Your task to perform on an android device: turn vacation reply on in the gmail app Image 0: 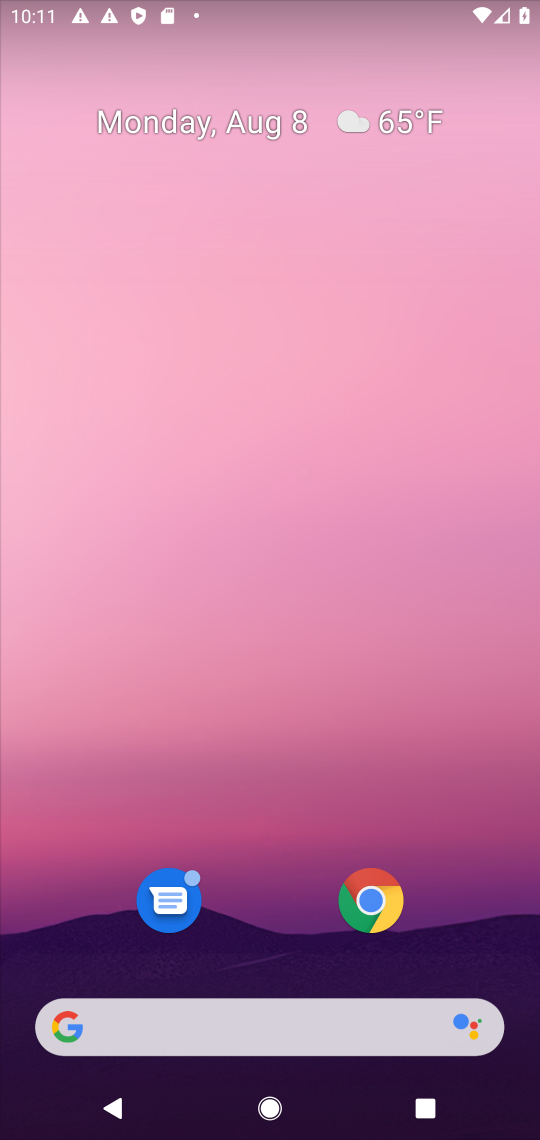
Step 0: drag from (323, 909) to (240, 27)
Your task to perform on an android device: turn vacation reply on in the gmail app Image 1: 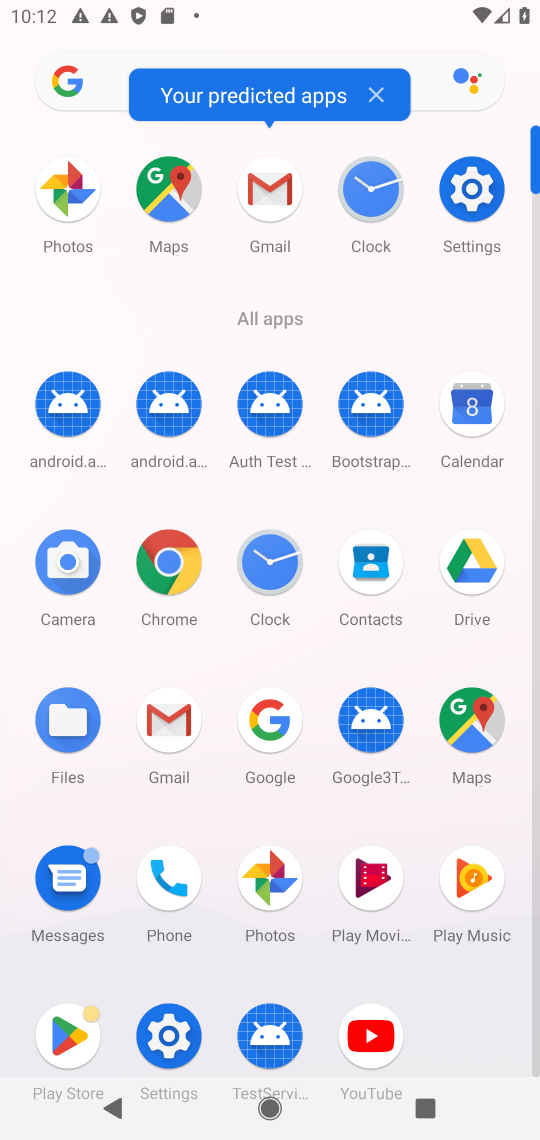
Step 1: click (270, 184)
Your task to perform on an android device: turn vacation reply on in the gmail app Image 2: 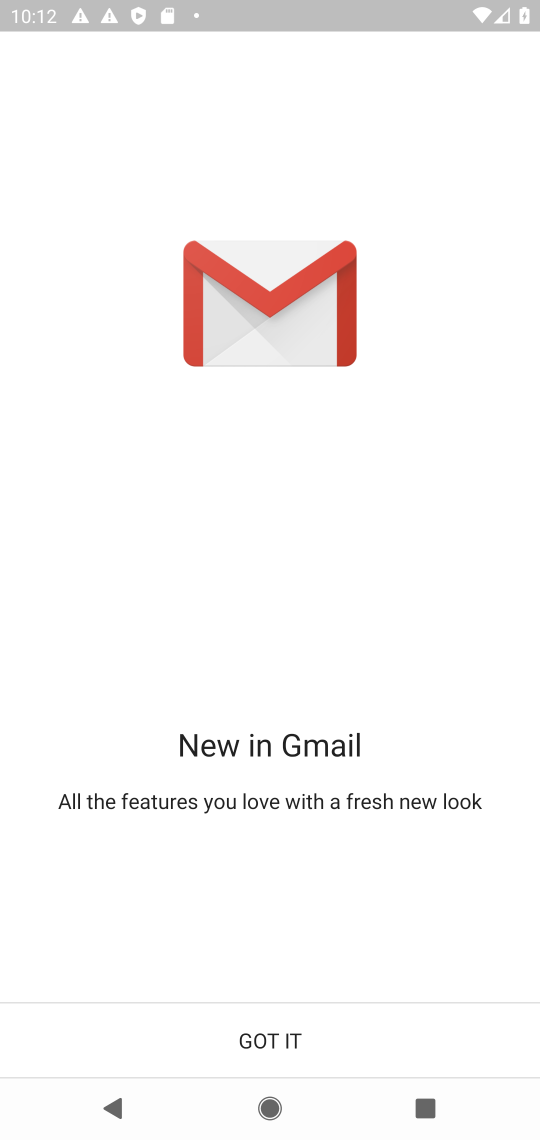
Step 2: click (284, 1036)
Your task to perform on an android device: turn vacation reply on in the gmail app Image 3: 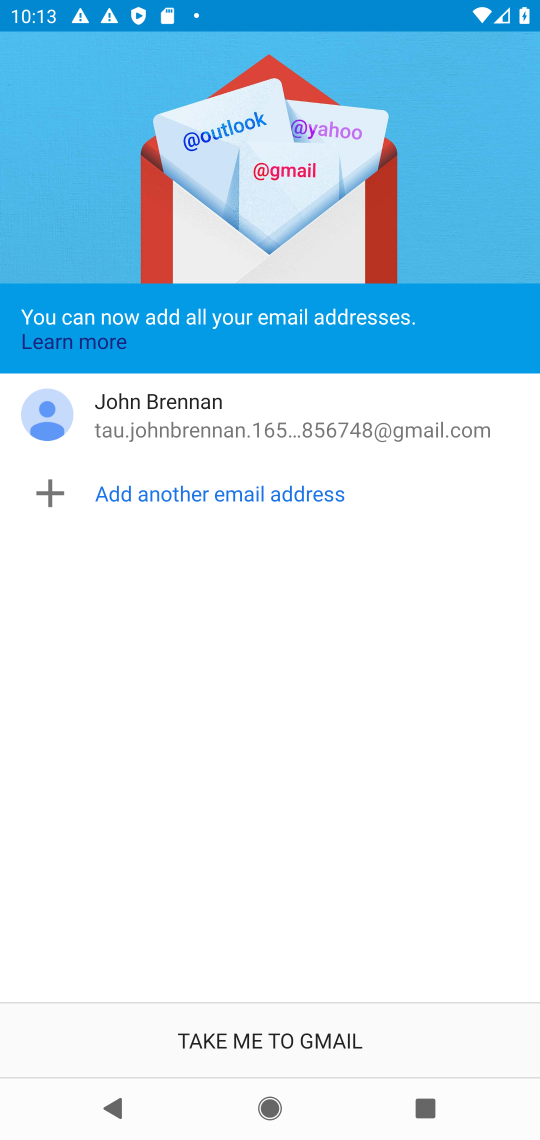
Step 3: click (284, 1036)
Your task to perform on an android device: turn vacation reply on in the gmail app Image 4: 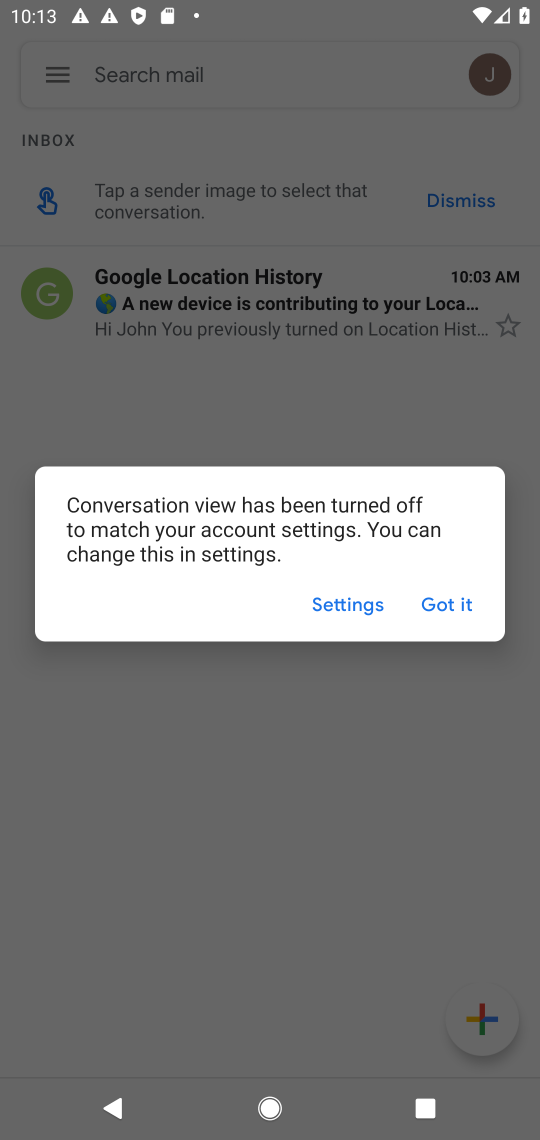
Step 4: click (446, 604)
Your task to perform on an android device: turn vacation reply on in the gmail app Image 5: 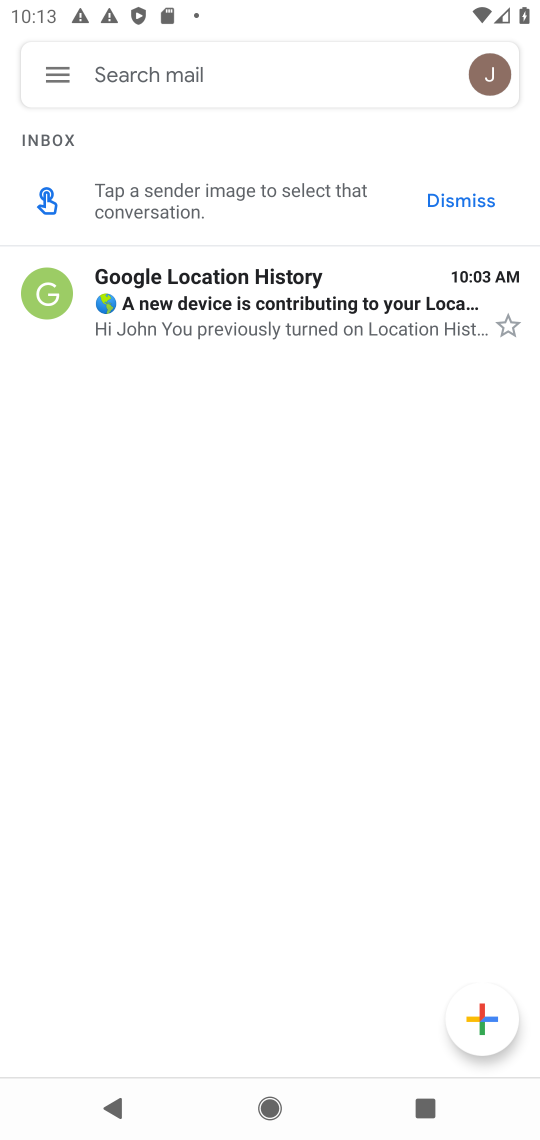
Step 5: click (57, 77)
Your task to perform on an android device: turn vacation reply on in the gmail app Image 6: 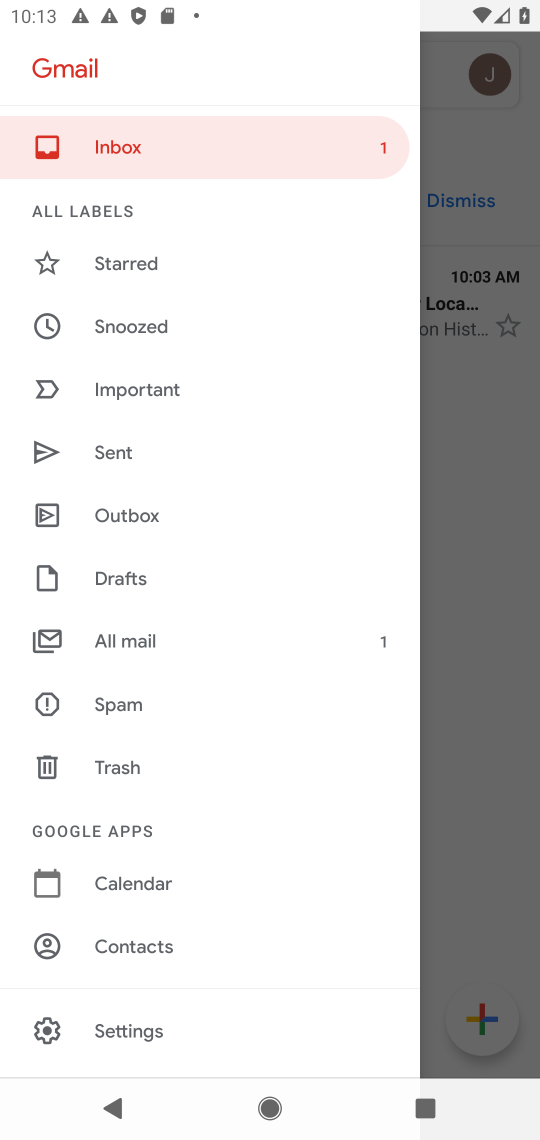
Step 6: click (130, 1013)
Your task to perform on an android device: turn vacation reply on in the gmail app Image 7: 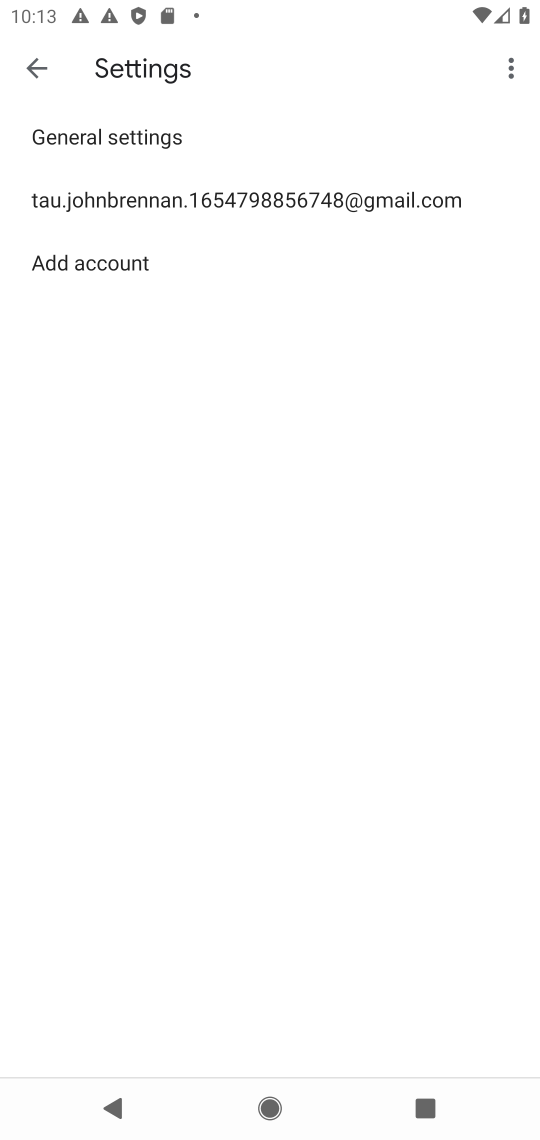
Step 7: click (188, 203)
Your task to perform on an android device: turn vacation reply on in the gmail app Image 8: 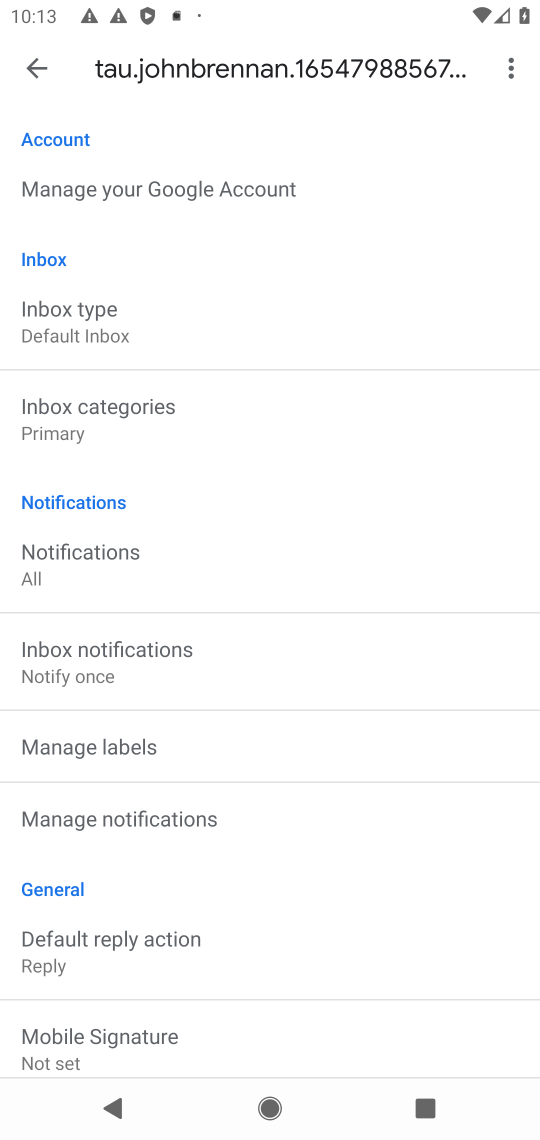
Step 8: drag from (113, 703) to (166, 438)
Your task to perform on an android device: turn vacation reply on in the gmail app Image 9: 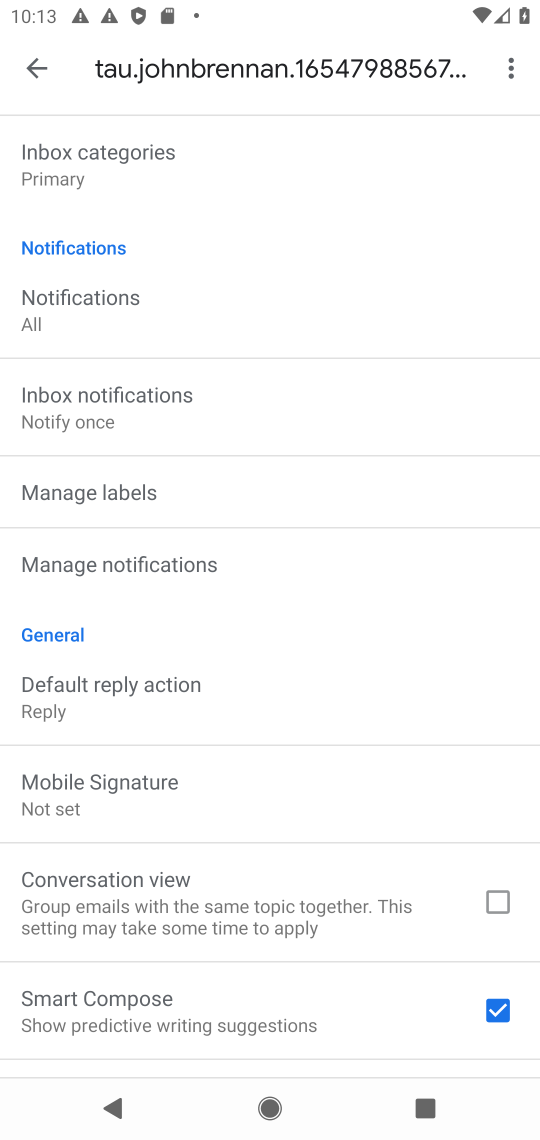
Step 9: drag from (137, 969) to (237, 421)
Your task to perform on an android device: turn vacation reply on in the gmail app Image 10: 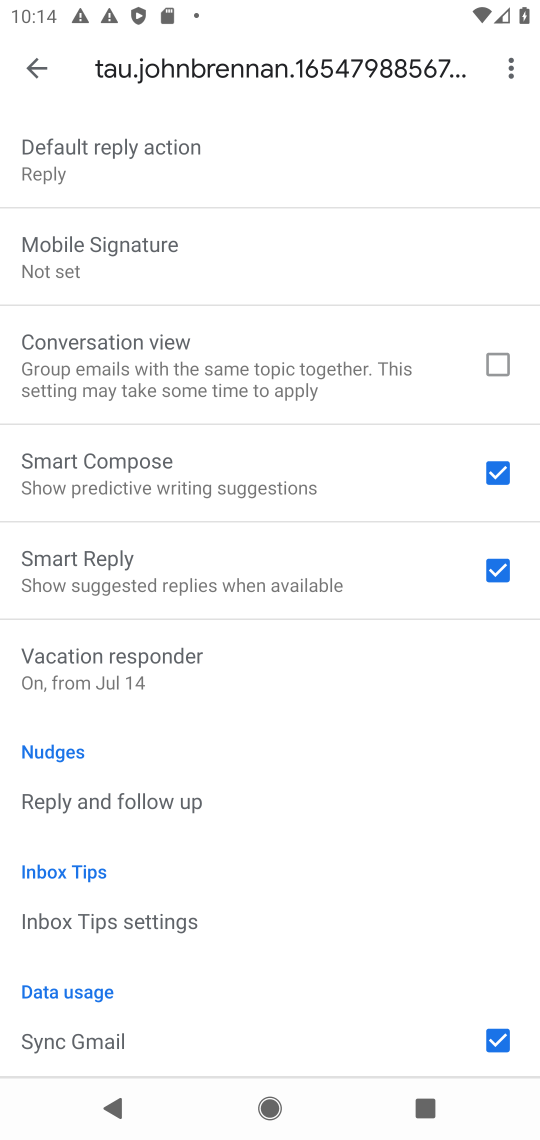
Step 10: click (104, 689)
Your task to perform on an android device: turn vacation reply on in the gmail app Image 11: 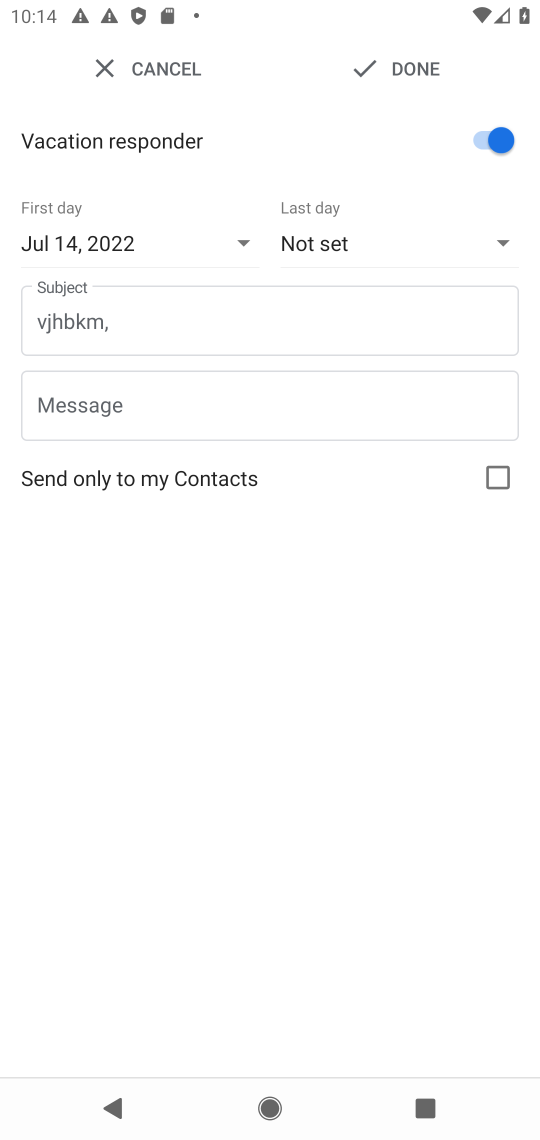
Step 11: click (406, 65)
Your task to perform on an android device: turn vacation reply on in the gmail app Image 12: 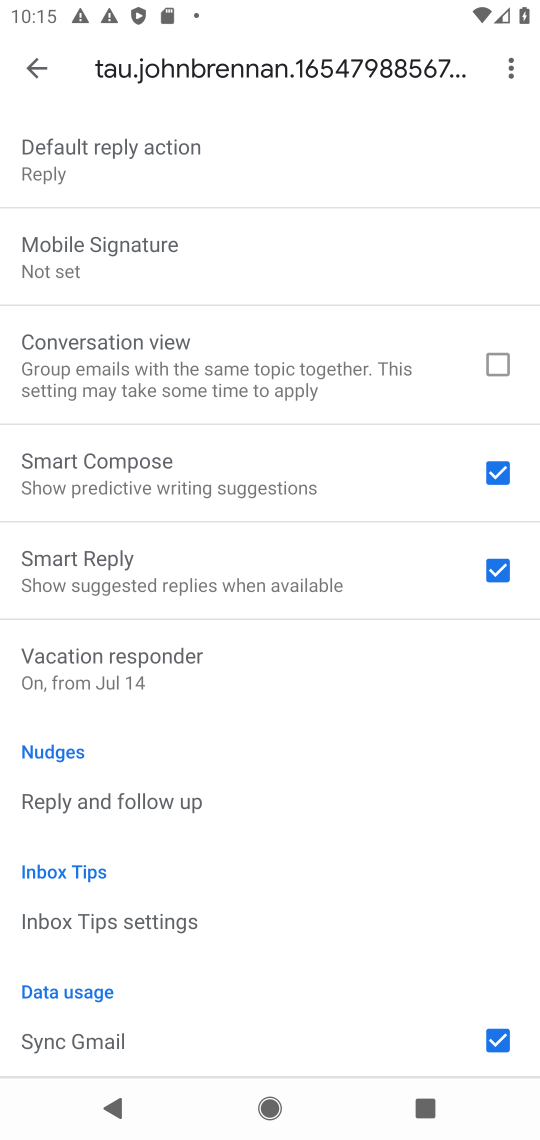
Step 12: click (126, 688)
Your task to perform on an android device: turn vacation reply on in the gmail app Image 13: 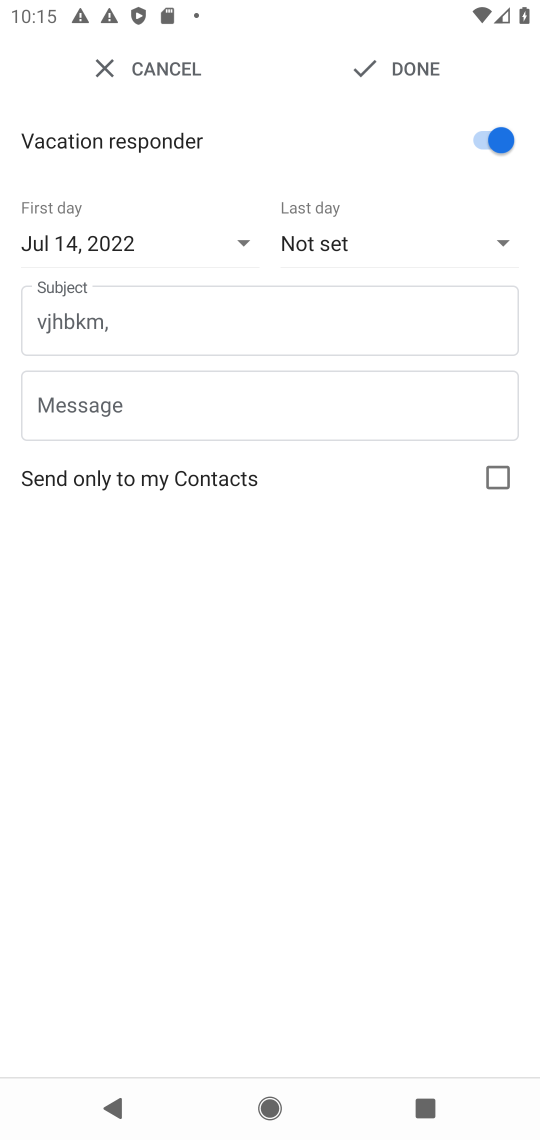
Step 13: task complete